Your task to perform on an android device: Go to wifi settings Image 0: 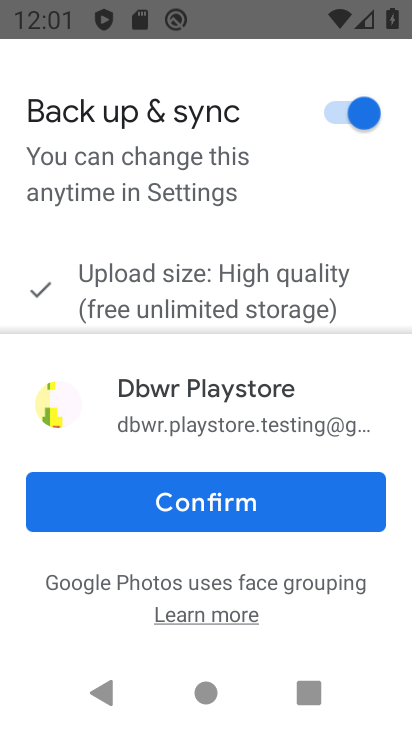
Step 0: press home button
Your task to perform on an android device: Go to wifi settings Image 1: 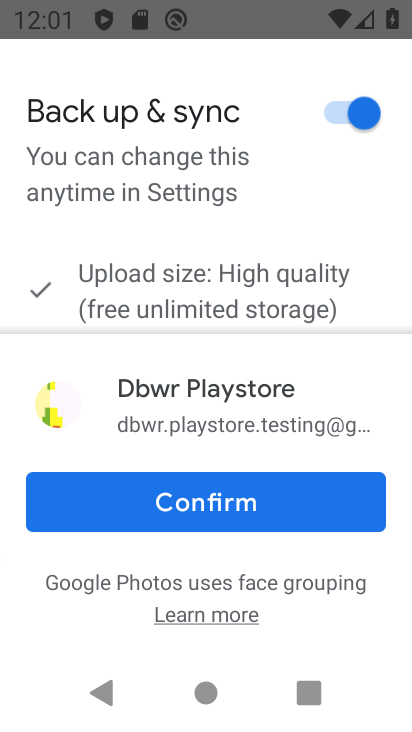
Step 1: press home button
Your task to perform on an android device: Go to wifi settings Image 2: 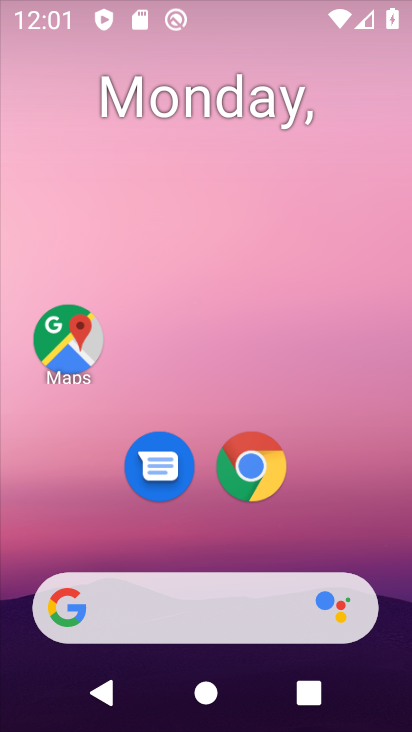
Step 2: press home button
Your task to perform on an android device: Go to wifi settings Image 3: 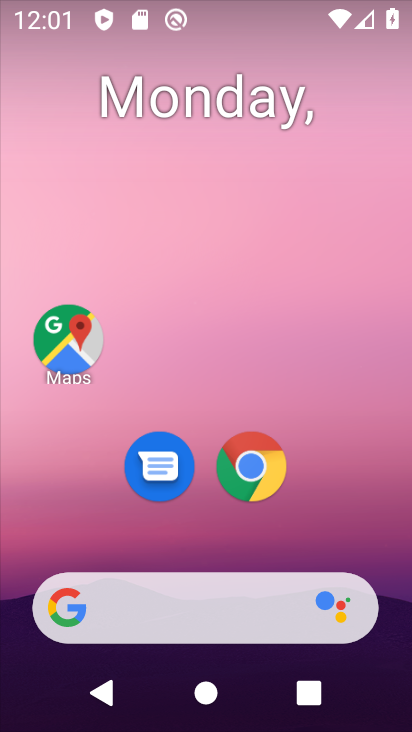
Step 3: drag from (263, 41) to (207, 581)
Your task to perform on an android device: Go to wifi settings Image 4: 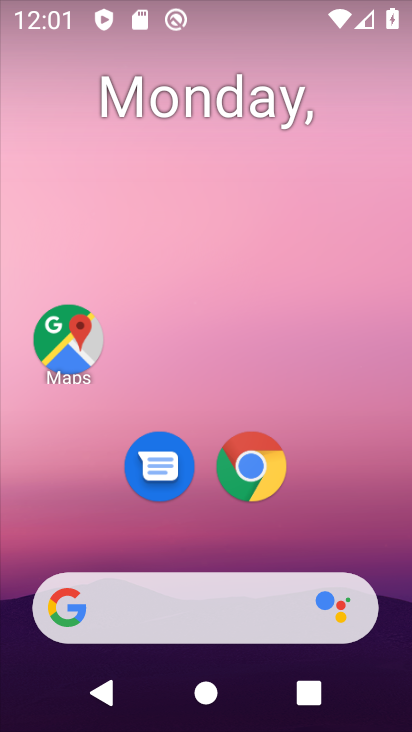
Step 4: drag from (216, 0) to (177, 347)
Your task to perform on an android device: Go to wifi settings Image 5: 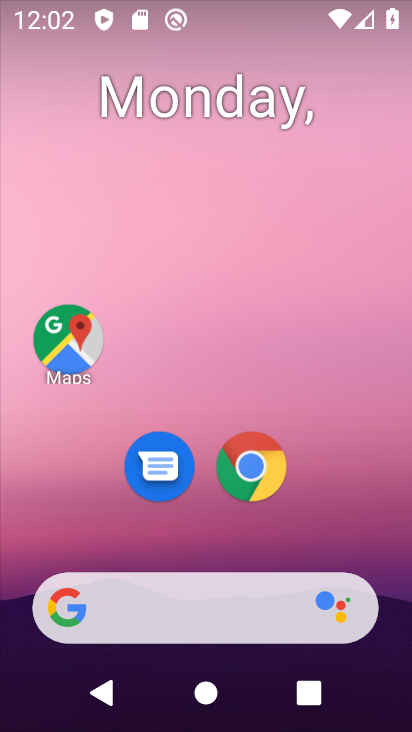
Step 5: drag from (267, 0) to (296, 337)
Your task to perform on an android device: Go to wifi settings Image 6: 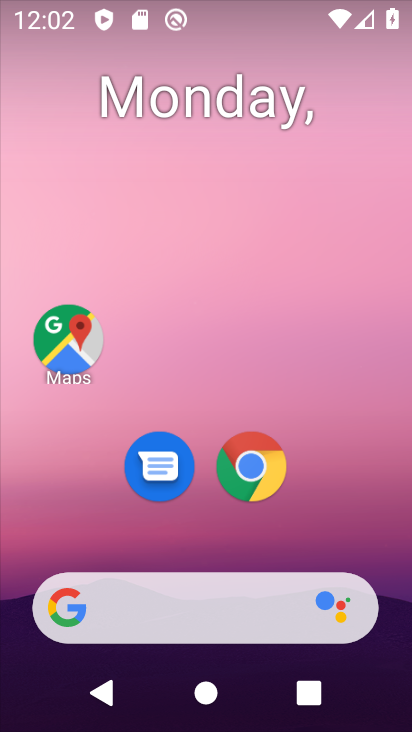
Step 6: drag from (352, 8) to (351, 98)
Your task to perform on an android device: Go to wifi settings Image 7: 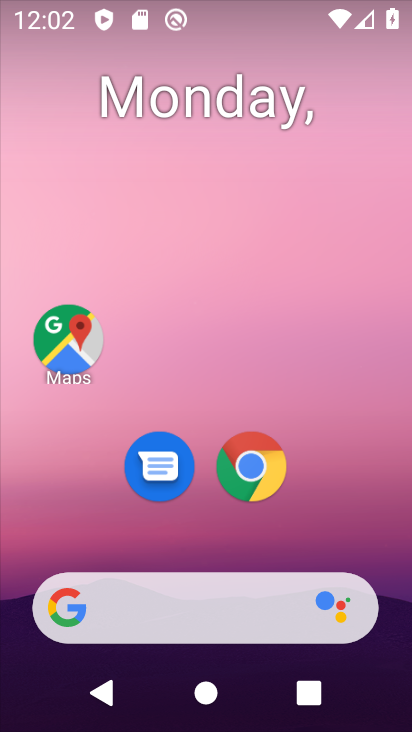
Step 7: drag from (249, 4) to (176, 705)
Your task to perform on an android device: Go to wifi settings Image 8: 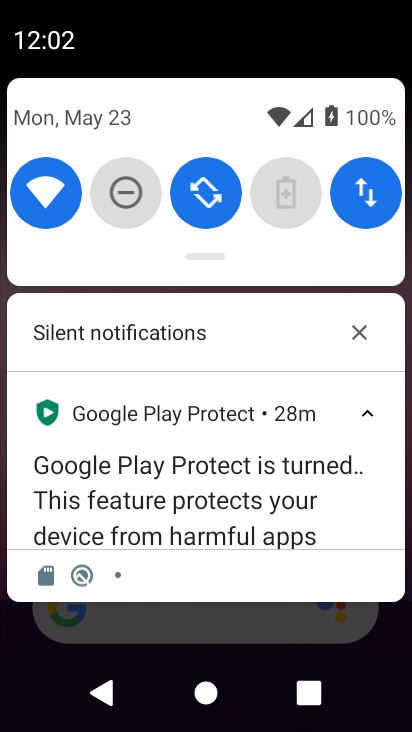
Step 8: click (46, 220)
Your task to perform on an android device: Go to wifi settings Image 9: 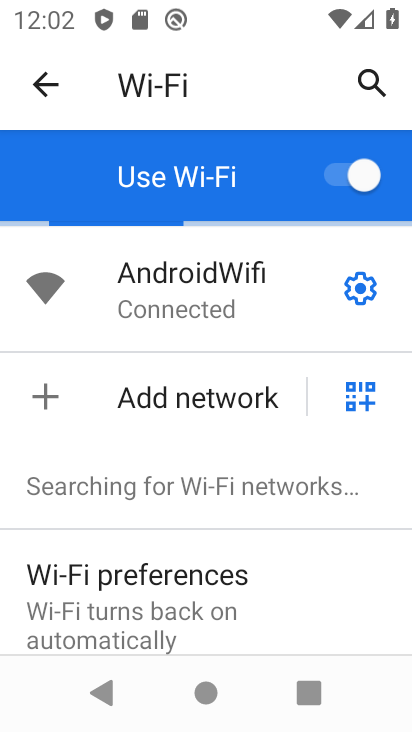
Step 9: task complete